Your task to perform on an android device: check data usage Image 0: 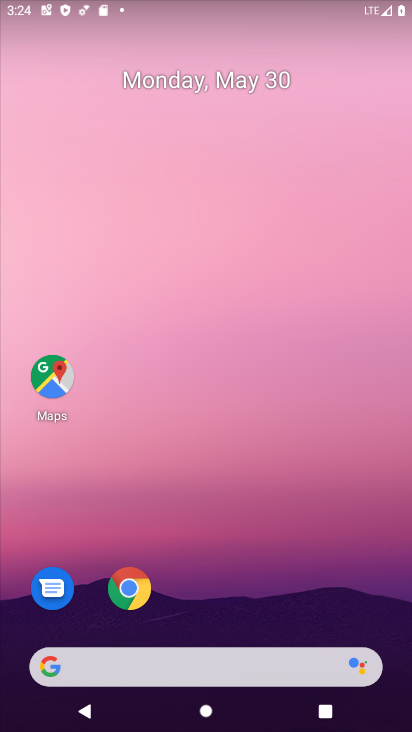
Step 0: drag from (225, 490) to (224, 13)
Your task to perform on an android device: check data usage Image 1: 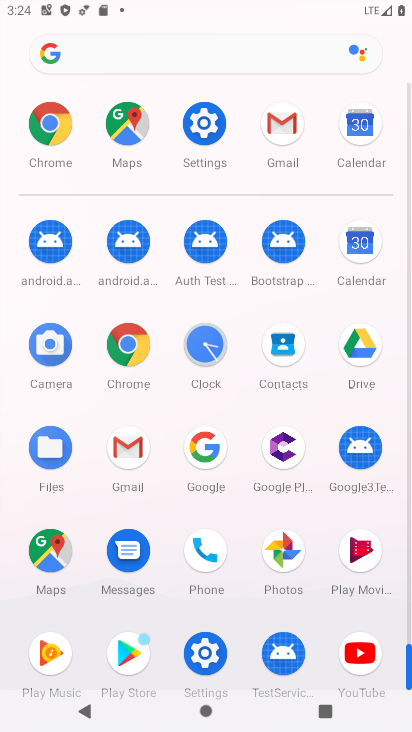
Step 1: drag from (17, 548) to (6, 210)
Your task to perform on an android device: check data usage Image 2: 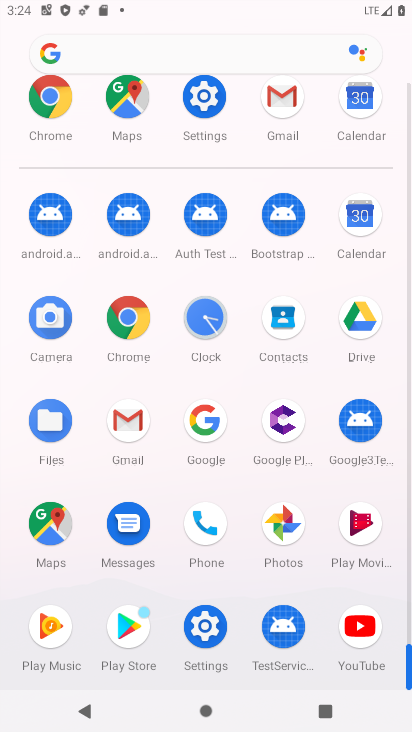
Step 2: drag from (10, 509) to (17, 255)
Your task to perform on an android device: check data usage Image 3: 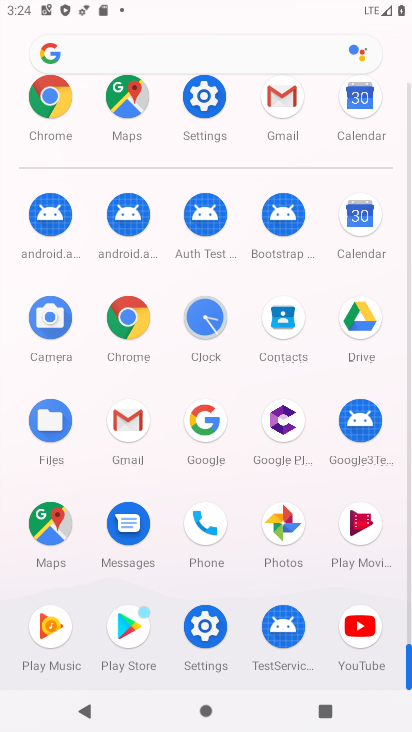
Step 3: click (205, 624)
Your task to perform on an android device: check data usage Image 4: 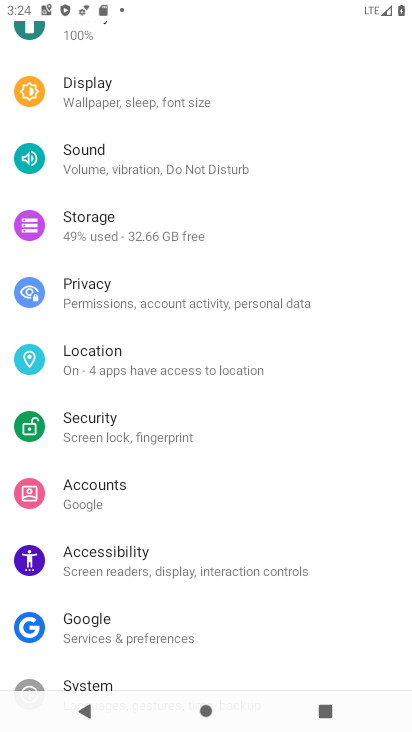
Step 4: drag from (216, 188) to (216, 630)
Your task to perform on an android device: check data usage Image 5: 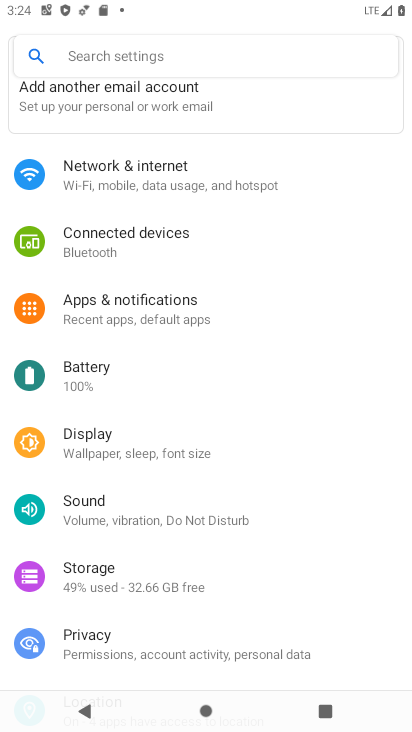
Step 5: click (164, 165)
Your task to perform on an android device: check data usage Image 6: 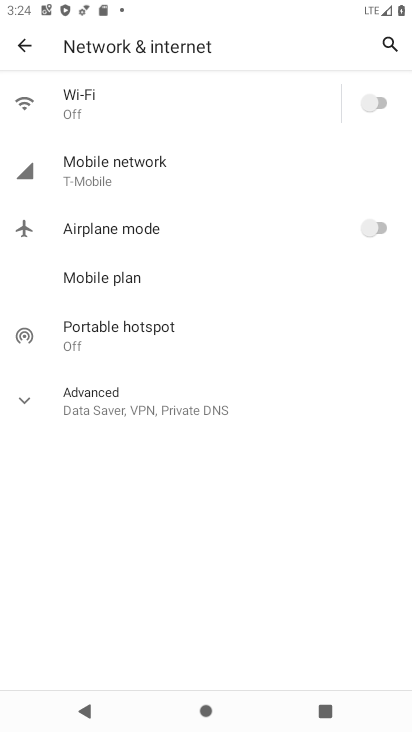
Step 6: click (164, 165)
Your task to perform on an android device: check data usage Image 7: 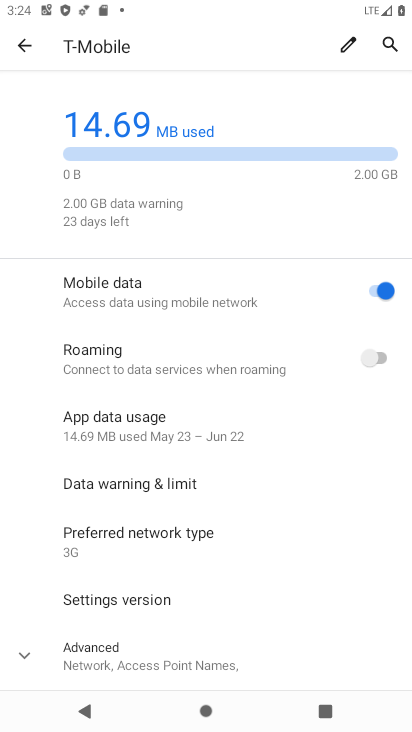
Step 7: task complete